Your task to perform on an android device: Search for a home improvement project you can do. Image 0: 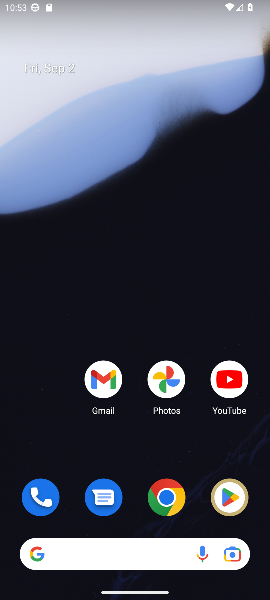
Step 0: click (112, 71)
Your task to perform on an android device: Search for a home improvement project you can do. Image 1: 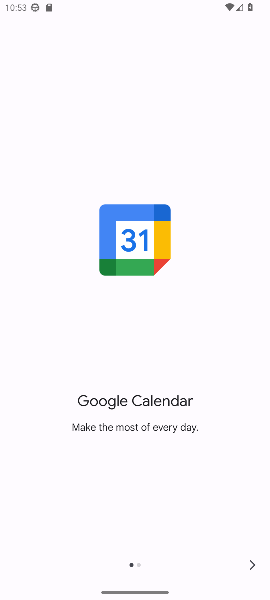
Step 1: press home button
Your task to perform on an android device: Search for a home improvement project you can do. Image 2: 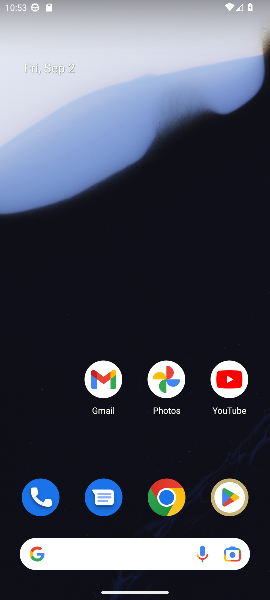
Step 2: click (178, 494)
Your task to perform on an android device: Search for a home improvement project you can do. Image 3: 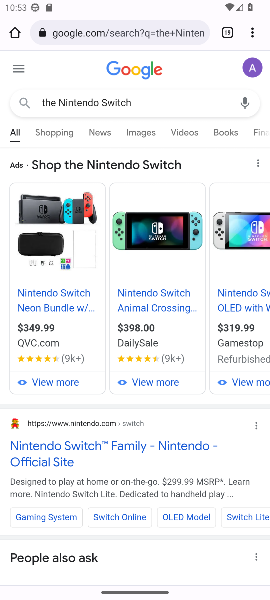
Step 3: click (126, 27)
Your task to perform on an android device: Search for a home improvement project you can do. Image 4: 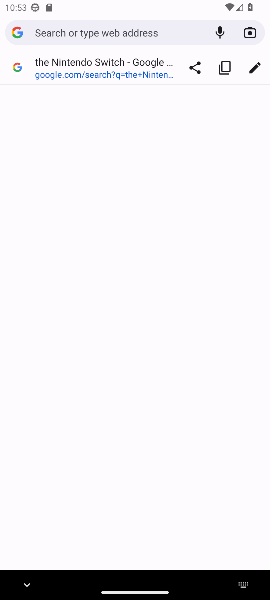
Step 4: type "a home improvement project you can do."
Your task to perform on an android device: Search for a home improvement project you can do. Image 5: 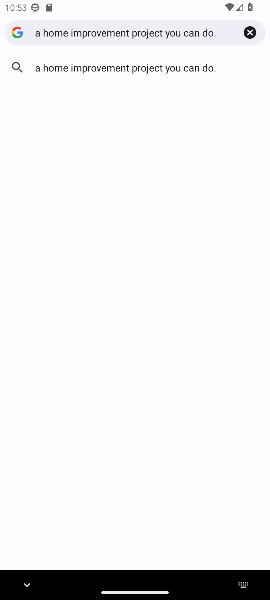
Step 5: click (104, 68)
Your task to perform on an android device: Search for a home improvement project you can do. Image 6: 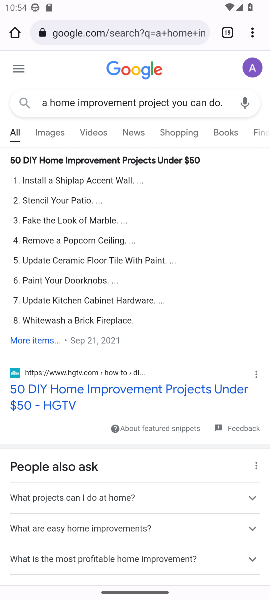
Step 6: task complete